Your task to perform on an android device: Show me popular videos on Youtube Image 0: 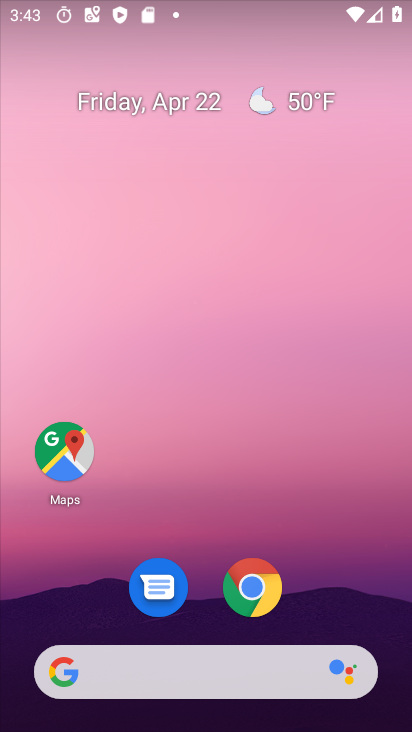
Step 0: drag from (340, 523) to (333, 8)
Your task to perform on an android device: Show me popular videos on Youtube Image 1: 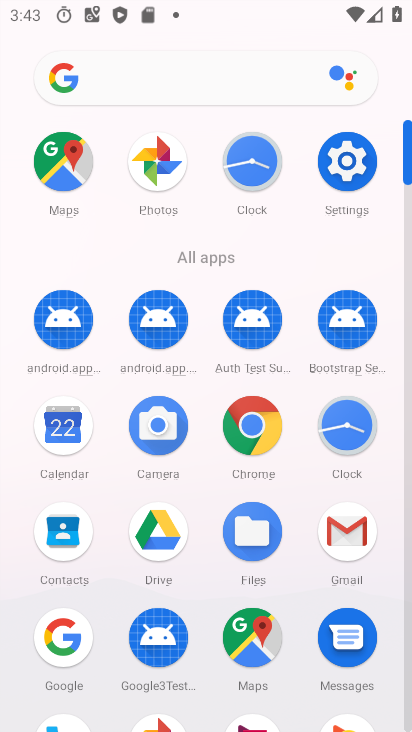
Step 1: click (404, 659)
Your task to perform on an android device: Show me popular videos on Youtube Image 2: 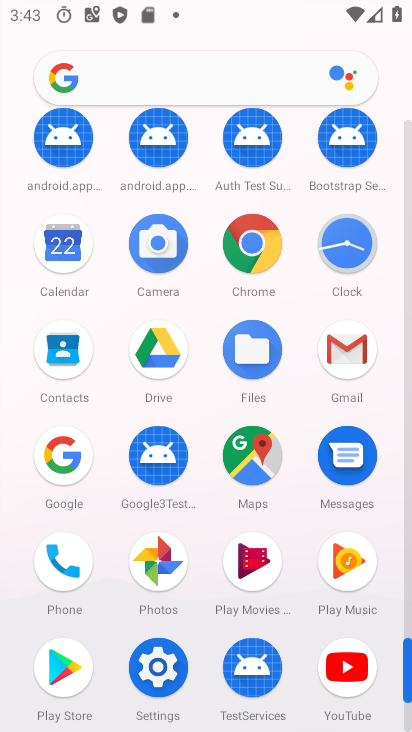
Step 2: click (336, 670)
Your task to perform on an android device: Show me popular videos on Youtube Image 3: 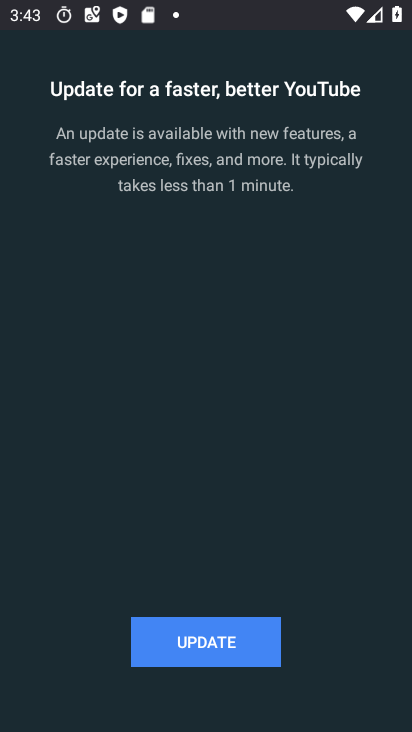
Step 3: click (238, 645)
Your task to perform on an android device: Show me popular videos on Youtube Image 4: 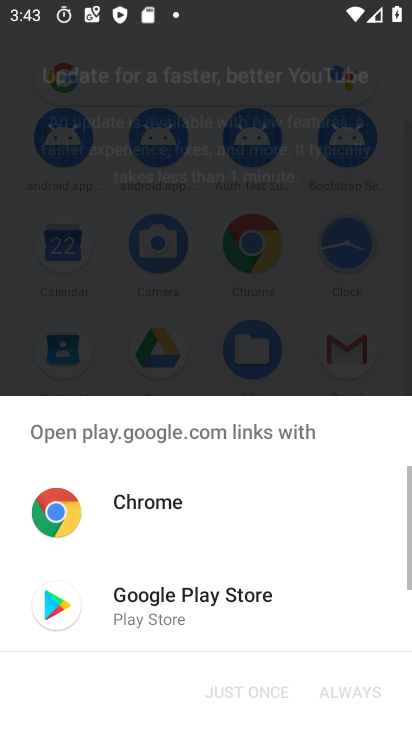
Step 4: click (236, 611)
Your task to perform on an android device: Show me popular videos on Youtube Image 5: 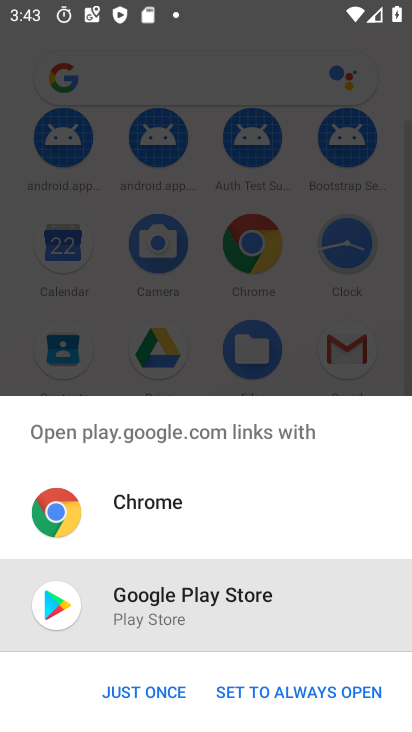
Step 5: click (128, 698)
Your task to perform on an android device: Show me popular videos on Youtube Image 6: 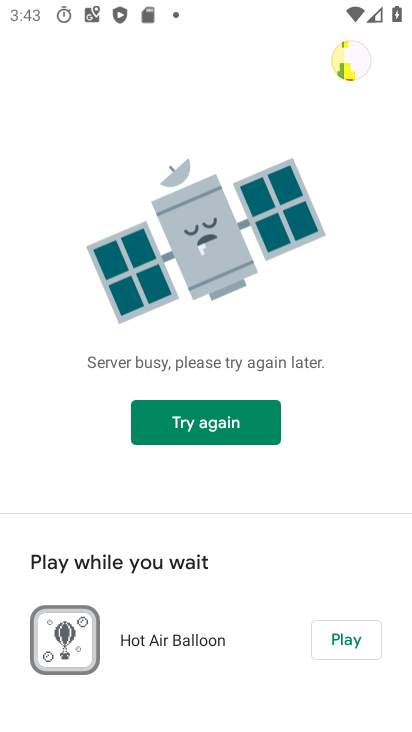
Step 6: task complete